Your task to perform on an android device: Search for seafood restaurants on Google Maps Image 0: 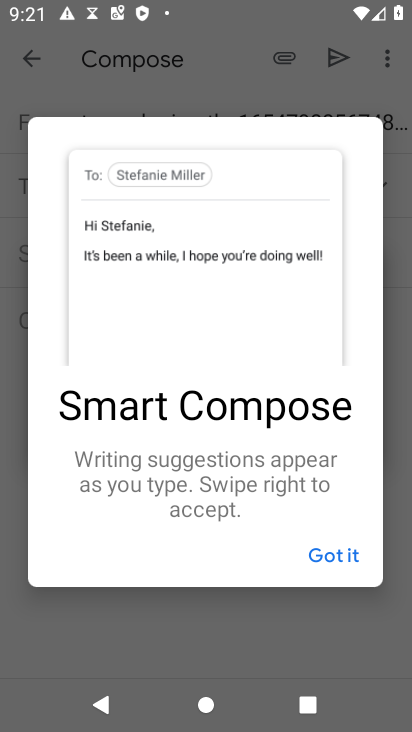
Step 0: press home button
Your task to perform on an android device: Search for seafood restaurants on Google Maps Image 1: 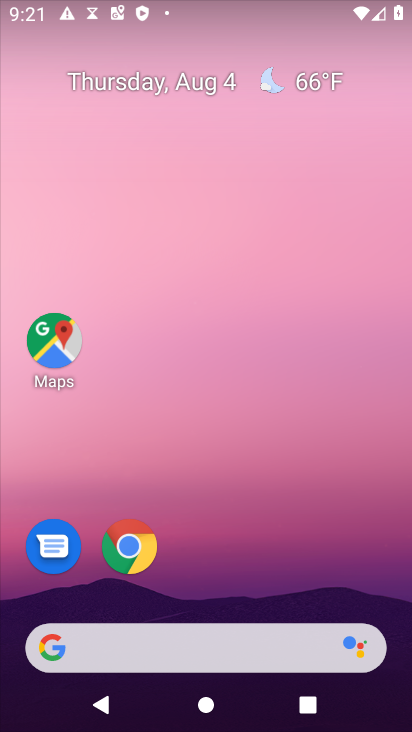
Step 1: click (68, 309)
Your task to perform on an android device: Search for seafood restaurants on Google Maps Image 2: 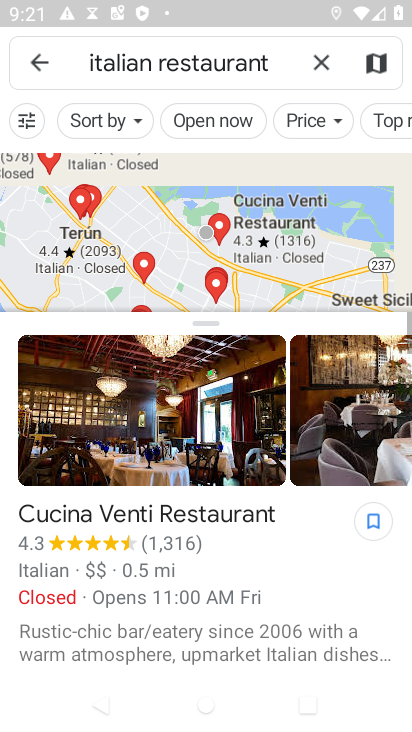
Step 2: click (35, 60)
Your task to perform on an android device: Search for seafood restaurants on Google Maps Image 3: 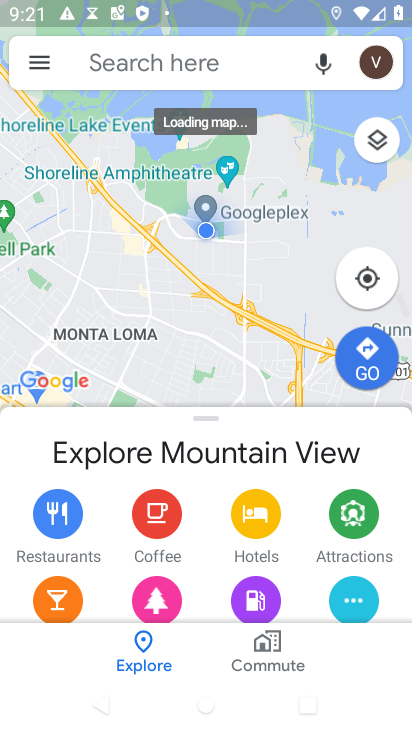
Step 3: click (187, 66)
Your task to perform on an android device: Search for seafood restaurants on Google Maps Image 4: 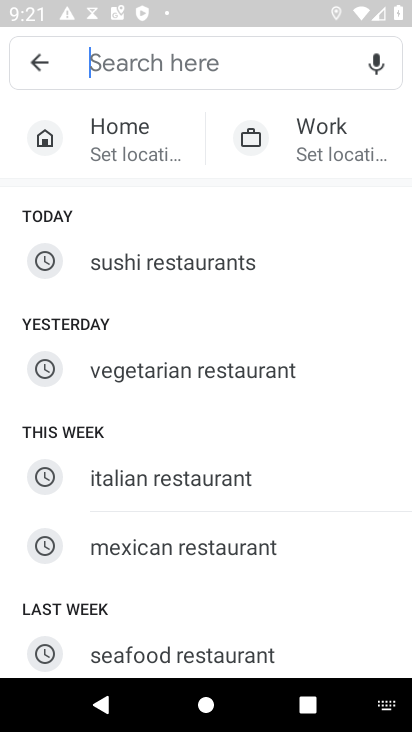
Step 4: click (173, 648)
Your task to perform on an android device: Search for seafood restaurants on Google Maps Image 5: 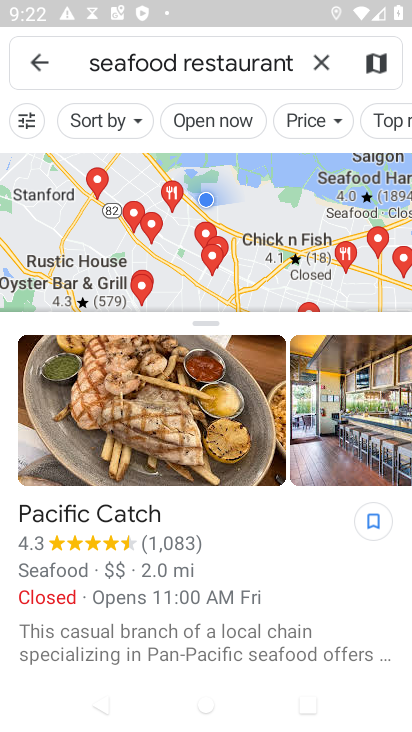
Step 5: task complete